Your task to perform on an android device: set the timer Image 0: 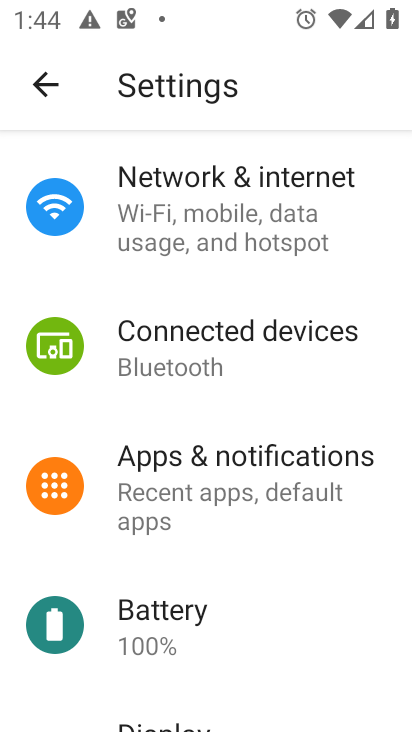
Step 0: press home button
Your task to perform on an android device: set the timer Image 1: 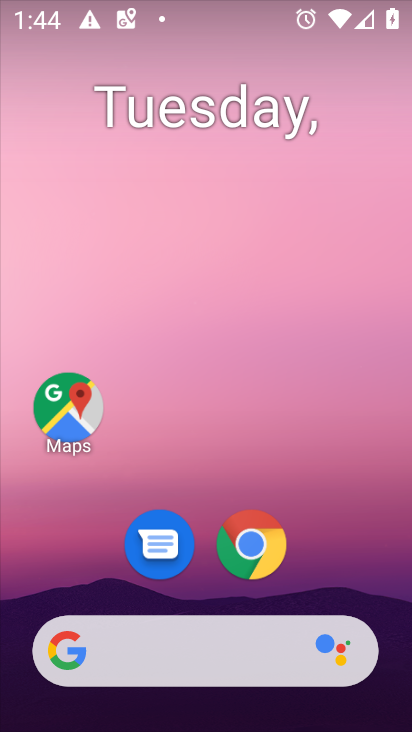
Step 1: drag from (313, 537) to (254, 89)
Your task to perform on an android device: set the timer Image 2: 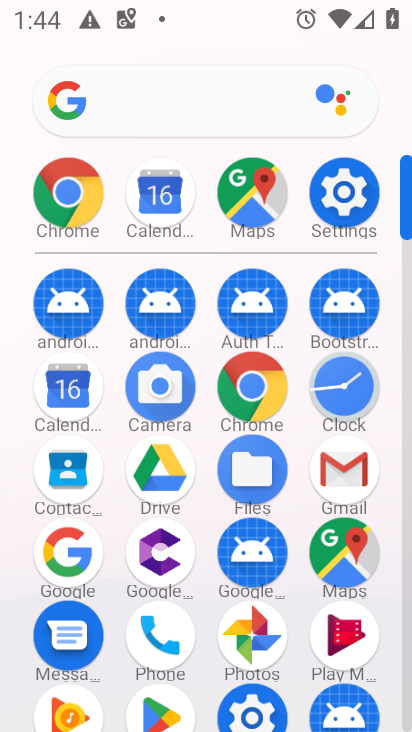
Step 2: click (348, 401)
Your task to perform on an android device: set the timer Image 3: 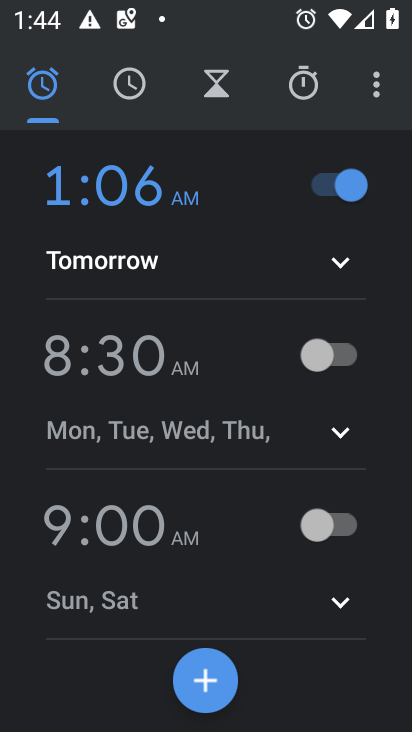
Step 3: click (231, 88)
Your task to perform on an android device: set the timer Image 4: 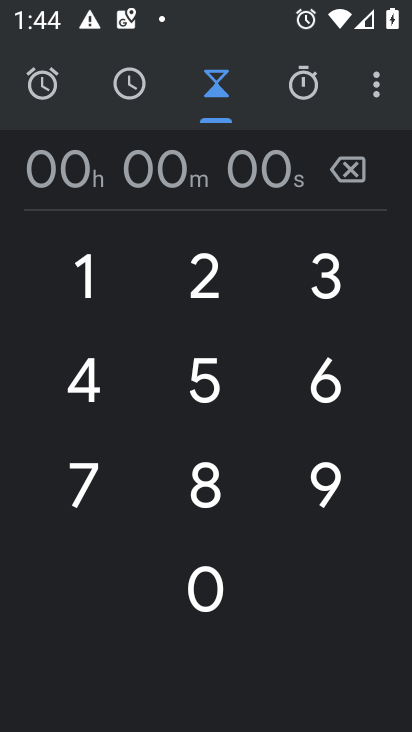
Step 4: click (197, 374)
Your task to perform on an android device: set the timer Image 5: 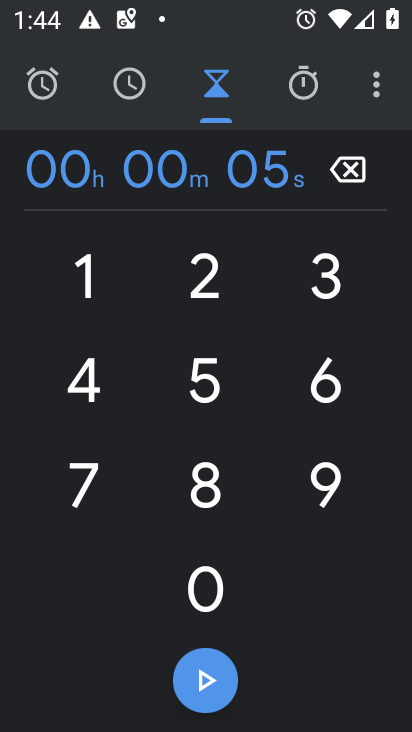
Step 5: task complete